Your task to perform on an android device: What's the weather going to be this weekend? Image 0: 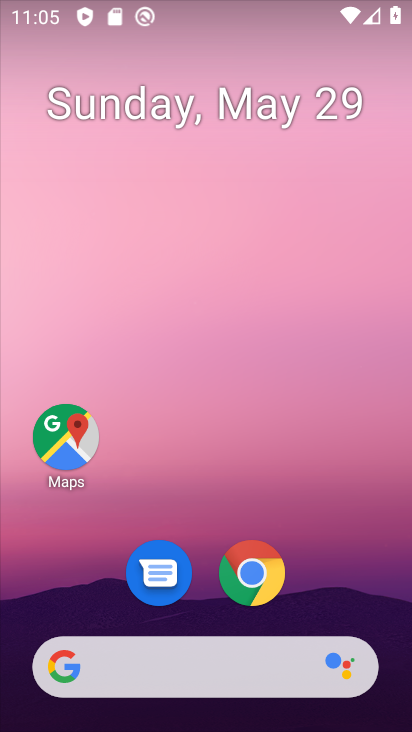
Step 0: click (189, 669)
Your task to perform on an android device: What's the weather going to be this weekend? Image 1: 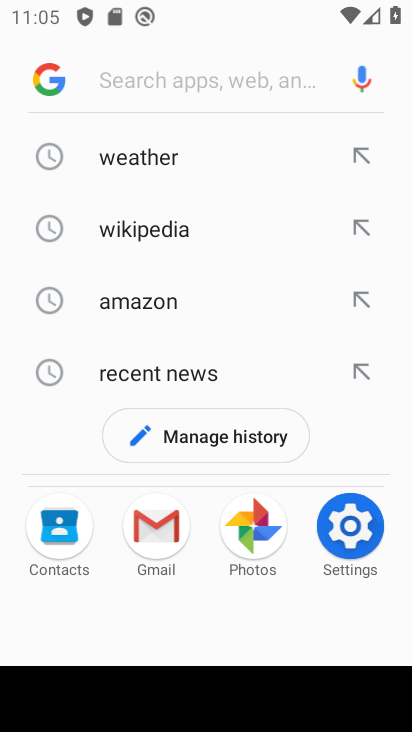
Step 1: type "weather going to be this weekend"
Your task to perform on an android device: What's the weather going to be this weekend? Image 2: 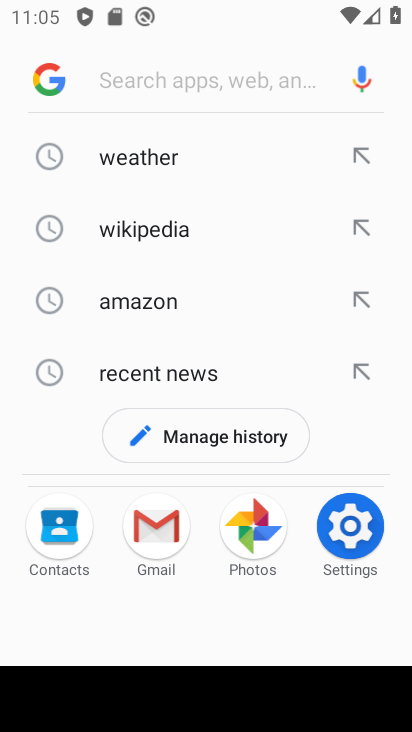
Step 2: click (198, 88)
Your task to perform on an android device: What's the weather going to be this weekend? Image 3: 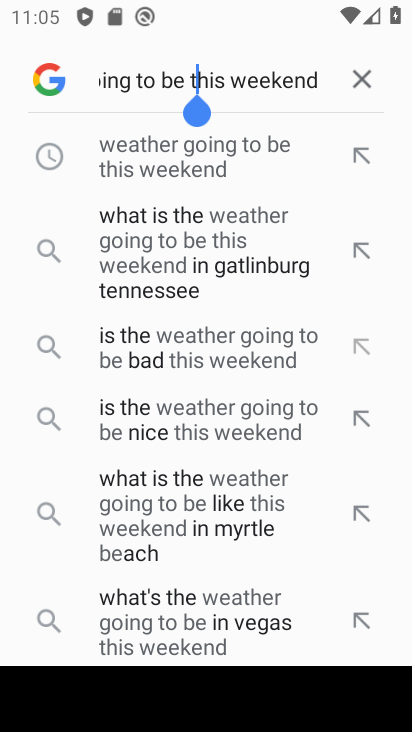
Step 3: click (226, 160)
Your task to perform on an android device: What's the weather going to be this weekend? Image 4: 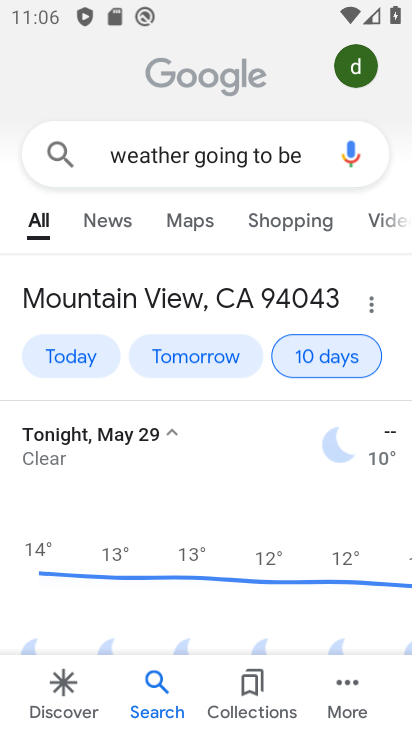
Step 4: task complete